Your task to perform on an android device: Open calendar and show me the second week of next month Image 0: 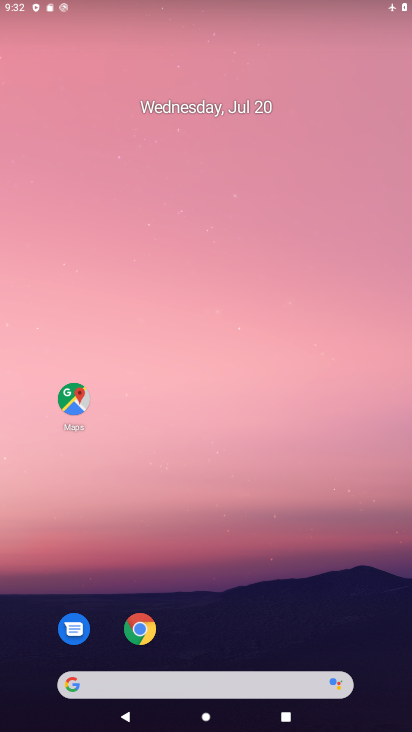
Step 0: click (319, 4)
Your task to perform on an android device: Open calendar and show me the second week of next month Image 1: 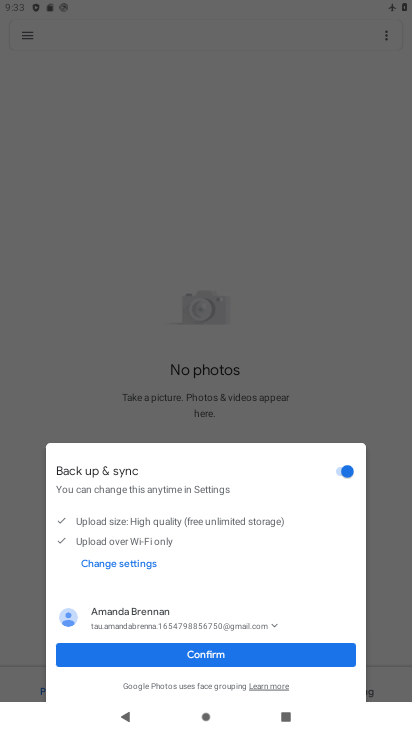
Step 1: press home button
Your task to perform on an android device: Open calendar and show me the second week of next month Image 2: 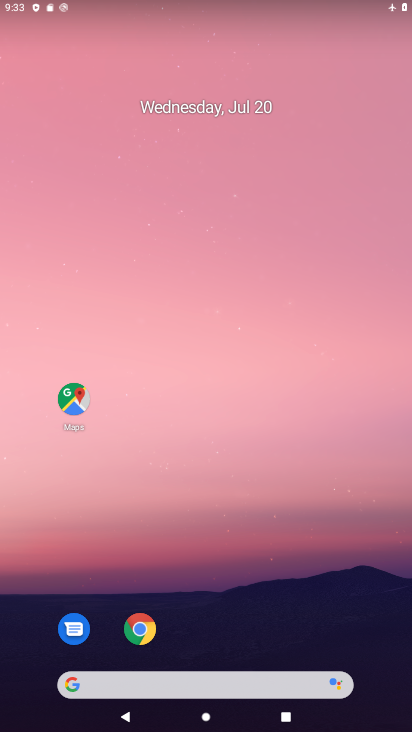
Step 2: drag from (239, 584) to (293, 0)
Your task to perform on an android device: Open calendar and show me the second week of next month Image 3: 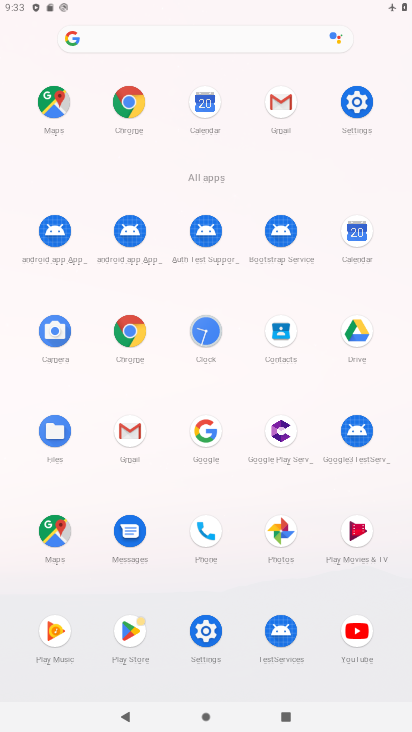
Step 3: click (352, 237)
Your task to perform on an android device: Open calendar and show me the second week of next month Image 4: 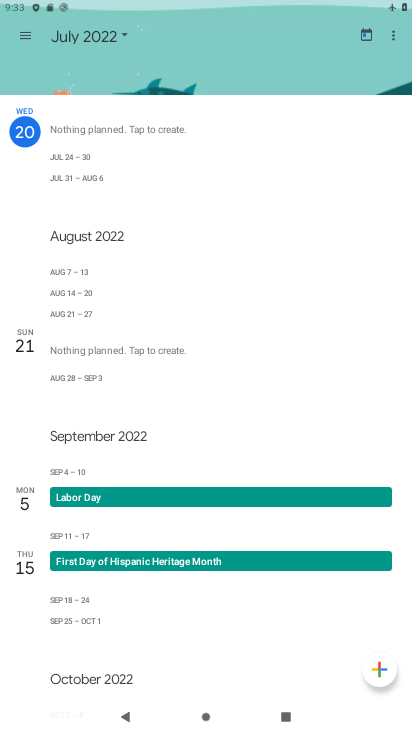
Step 4: click (68, 50)
Your task to perform on an android device: Open calendar and show me the second week of next month Image 5: 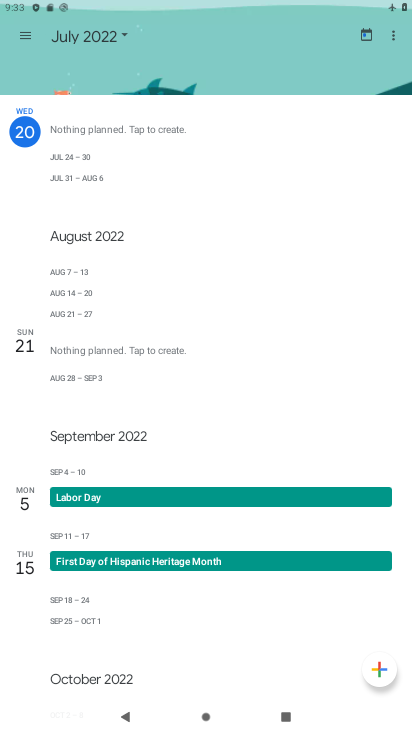
Step 5: click (81, 43)
Your task to perform on an android device: Open calendar and show me the second week of next month Image 6: 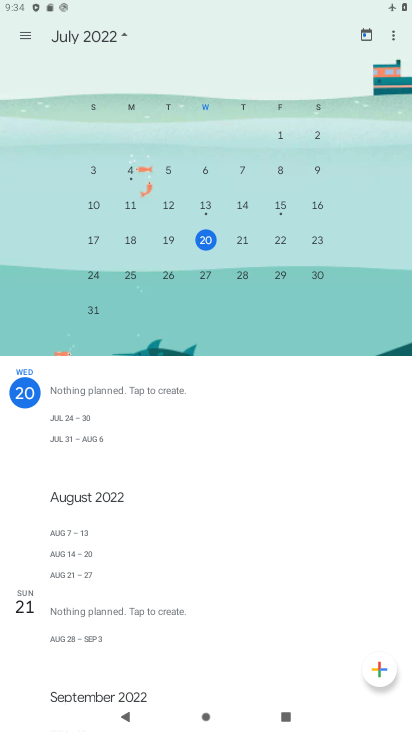
Step 6: drag from (260, 198) to (3, 216)
Your task to perform on an android device: Open calendar and show me the second week of next month Image 7: 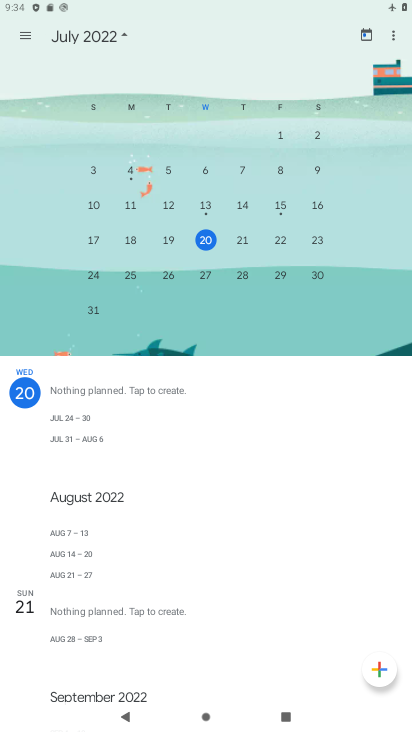
Step 7: click (248, 204)
Your task to perform on an android device: Open calendar and show me the second week of next month Image 8: 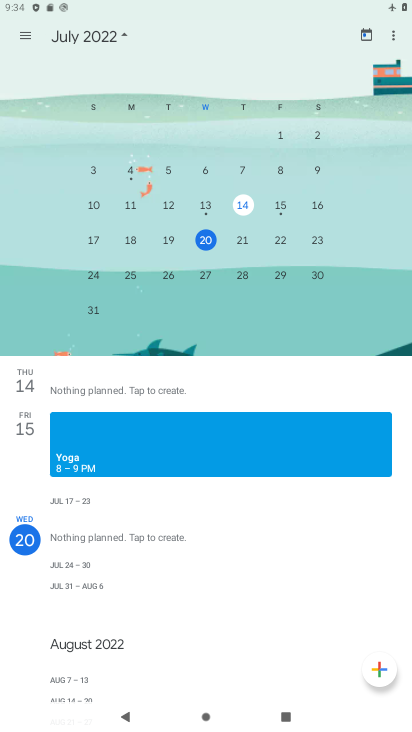
Step 8: task complete